Your task to perform on an android device: delete browsing data in the chrome app Image 0: 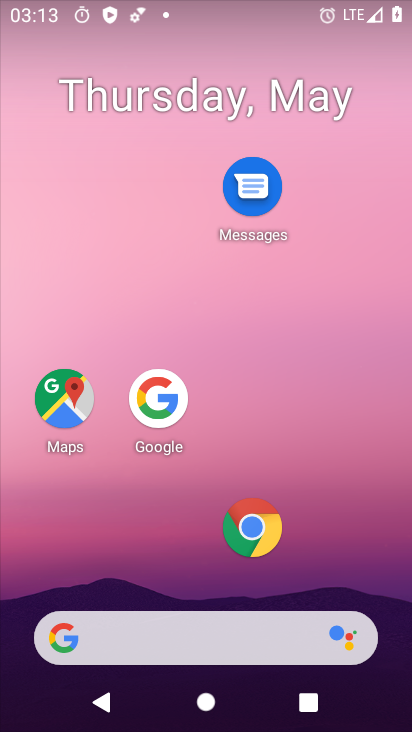
Step 0: drag from (202, 591) to (219, 129)
Your task to perform on an android device: delete browsing data in the chrome app Image 1: 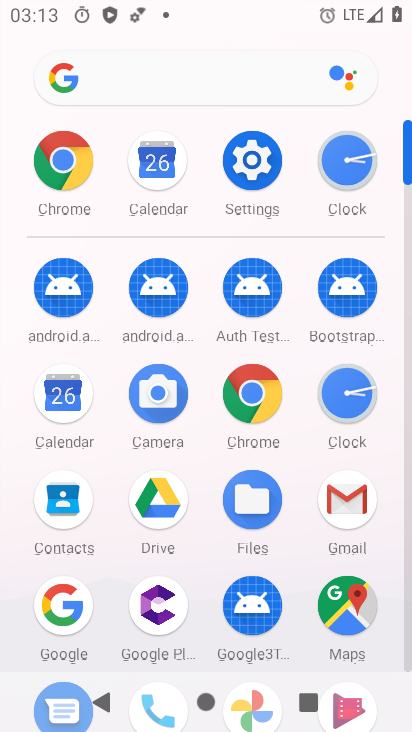
Step 1: click (250, 387)
Your task to perform on an android device: delete browsing data in the chrome app Image 2: 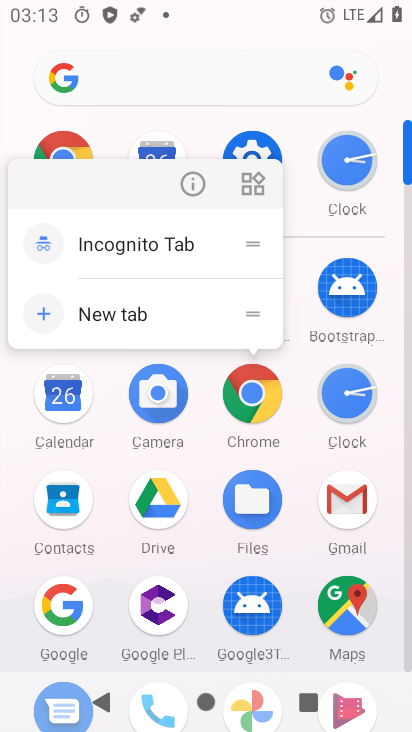
Step 2: click (194, 196)
Your task to perform on an android device: delete browsing data in the chrome app Image 3: 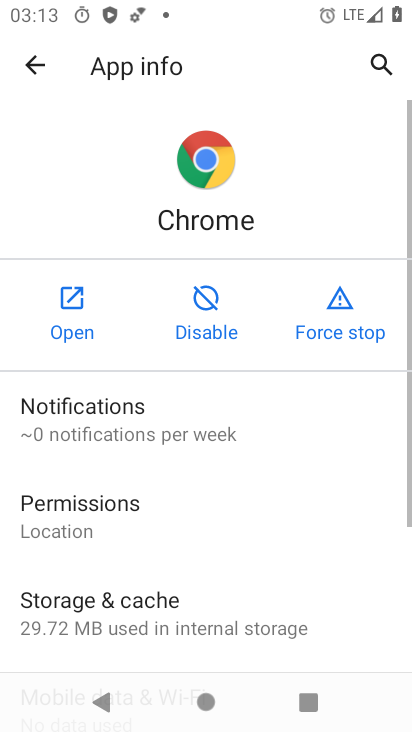
Step 3: click (63, 306)
Your task to perform on an android device: delete browsing data in the chrome app Image 4: 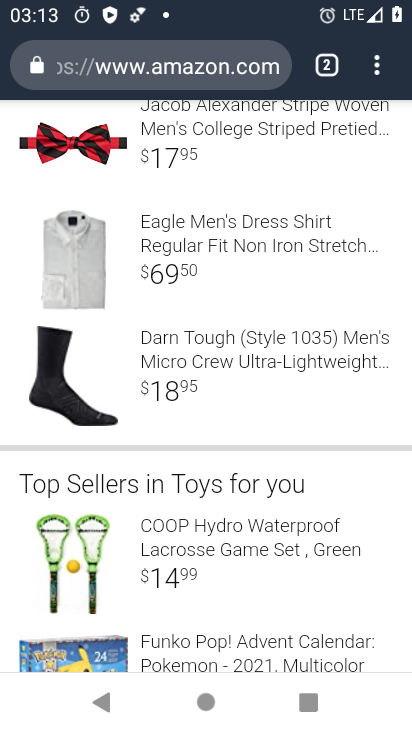
Step 4: drag from (227, 221) to (408, 121)
Your task to perform on an android device: delete browsing data in the chrome app Image 5: 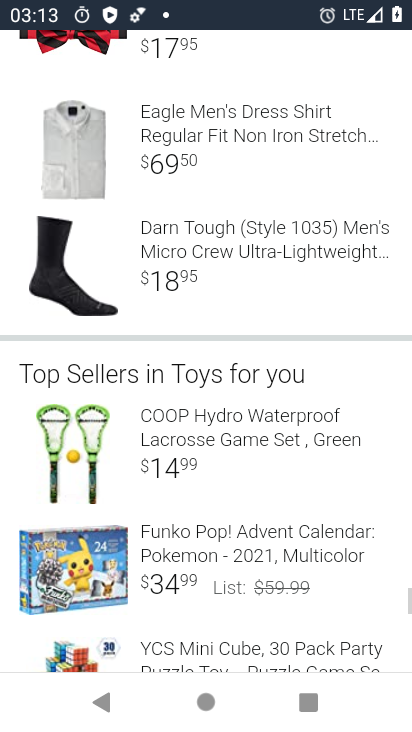
Step 5: click (377, 71)
Your task to perform on an android device: delete browsing data in the chrome app Image 6: 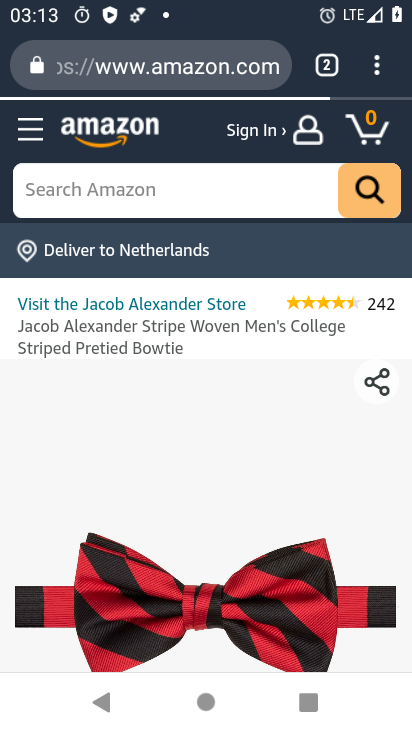
Step 6: click (377, 71)
Your task to perform on an android device: delete browsing data in the chrome app Image 7: 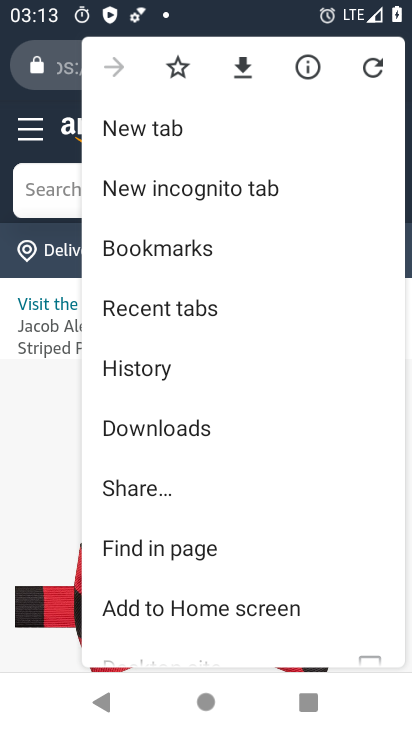
Step 7: click (143, 369)
Your task to perform on an android device: delete browsing data in the chrome app Image 8: 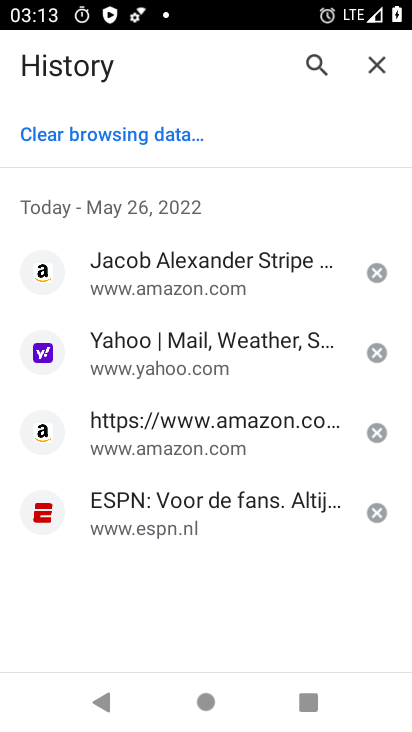
Step 8: click (106, 128)
Your task to perform on an android device: delete browsing data in the chrome app Image 9: 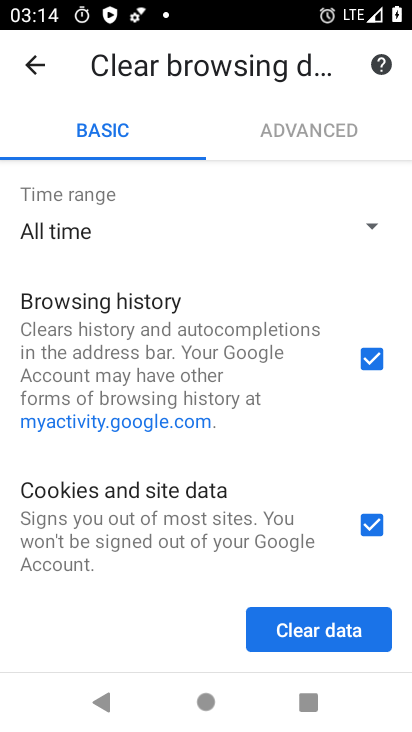
Step 9: click (343, 643)
Your task to perform on an android device: delete browsing data in the chrome app Image 10: 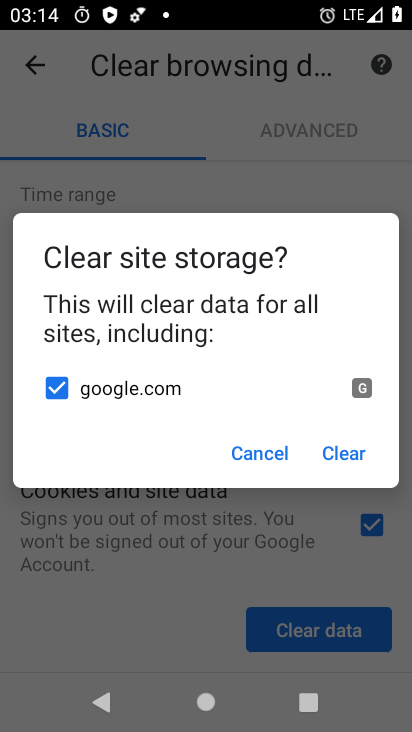
Step 10: click (339, 449)
Your task to perform on an android device: delete browsing data in the chrome app Image 11: 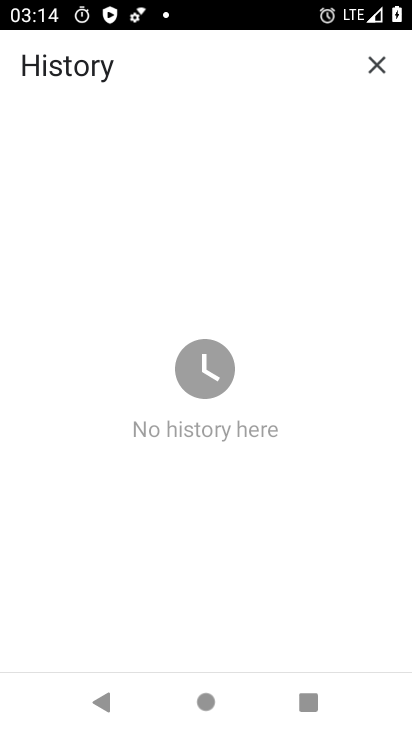
Step 11: task complete